Your task to perform on an android device: Search for vegetarian restaurants on Maps Image 0: 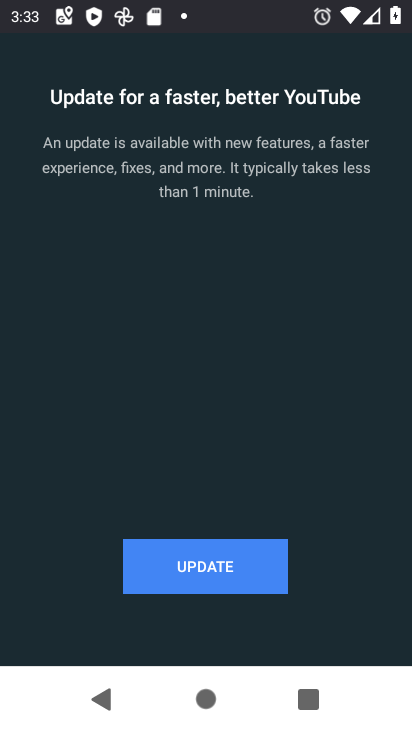
Step 0: press home button
Your task to perform on an android device: Search for vegetarian restaurants on Maps Image 1: 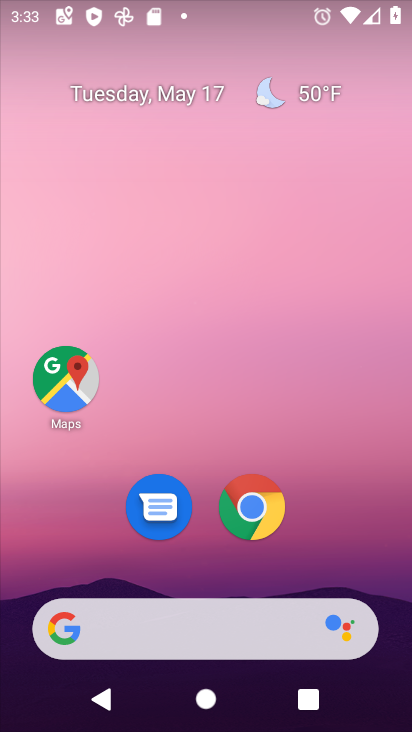
Step 1: click (68, 374)
Your task to perform on an android device: Search for vegetarian restaurants on Maps Image 2: 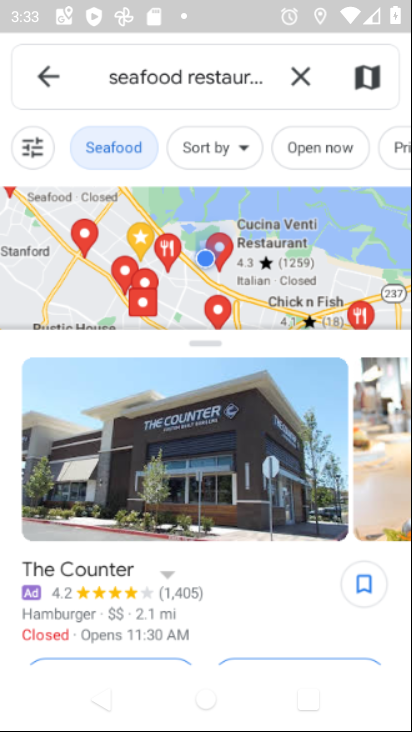
Step 2: click (300, 80)
Your task to perform on an android device: Search for vegetarian restaurants on Maps Image 3: 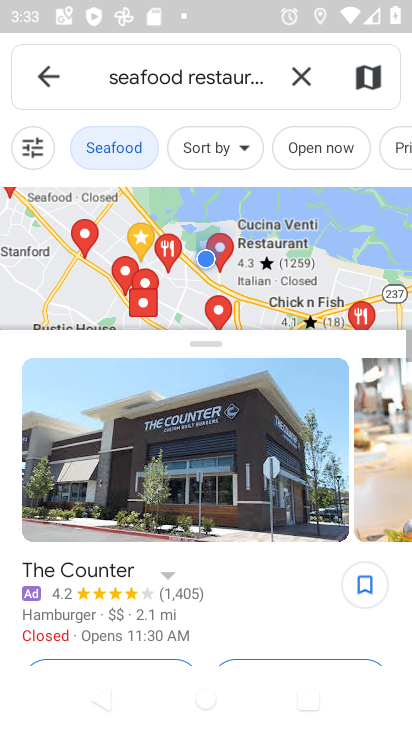
Step 3: click (300, 77)
Your task to perform on an android device: Search for vegetarian restaurants on Maps Image 4: 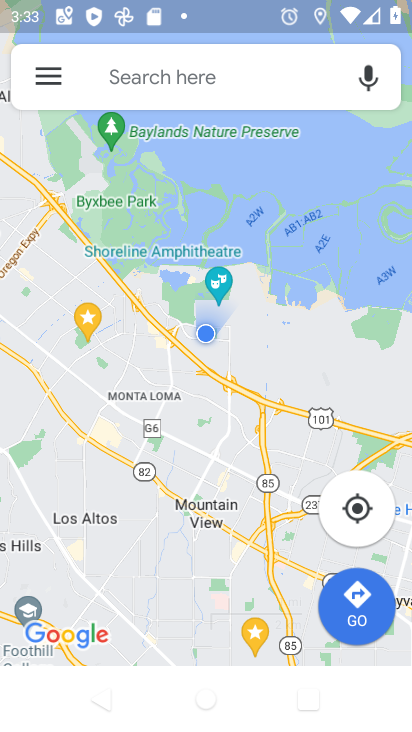
Step 4: click (227, 74)
Your task to perform on an android device: Search for vegetarian restaurants on Maps Image 5: 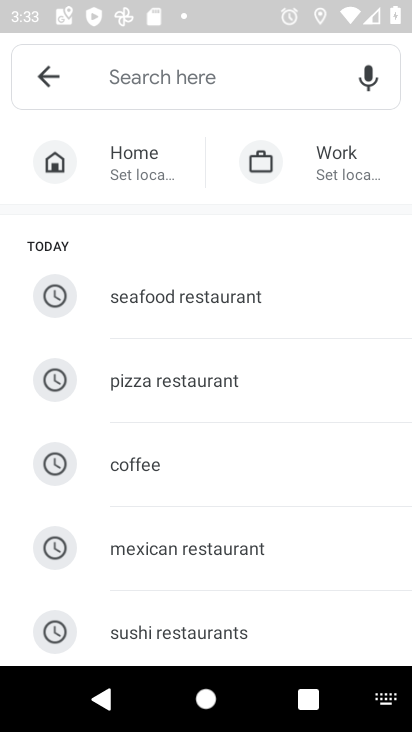
Step 5: drag from (269, 560) to (263, 277)
Your task to perform on an android device: Search for vegetarian restaurants on Maps Image 6: 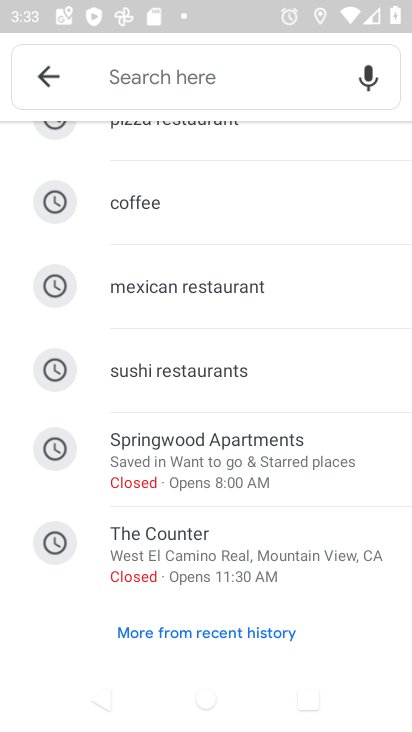
Step 6: drag from (231, 233) to (227, 627)
Your task to perform on an android device: Search for vegetarian restaurants on Maps Image 7: 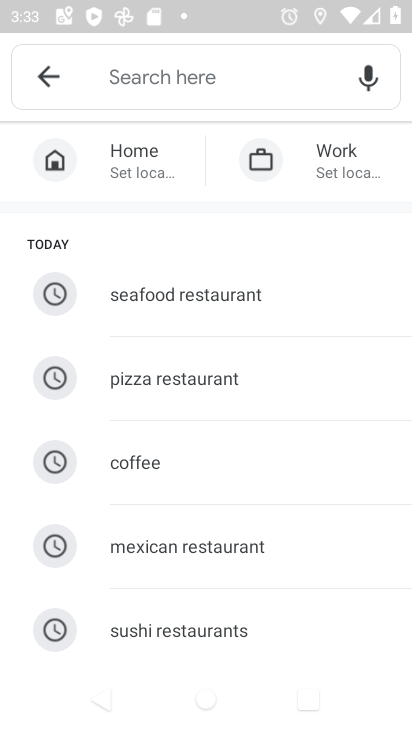
Step 7: drag from (226, 589) to (198, 263)
Your task to perform on an android device: Search for vegetarian restaurants on Maps Image 8: 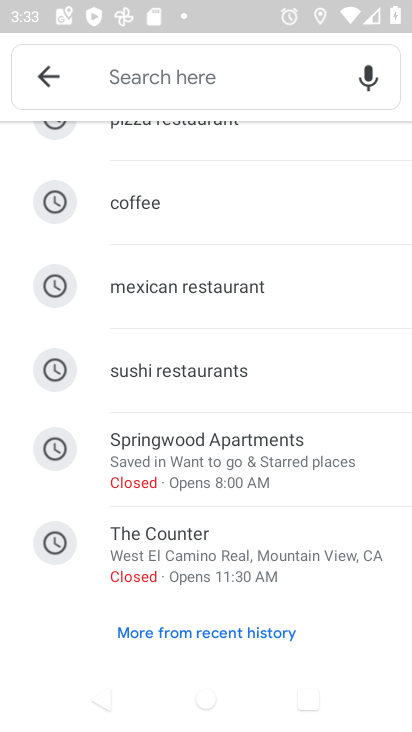
Step 8: drag from (187, 549) to (212, 280)
Your task to perform on an android device: Search for vegetarian restaurants on Maps Image 9: 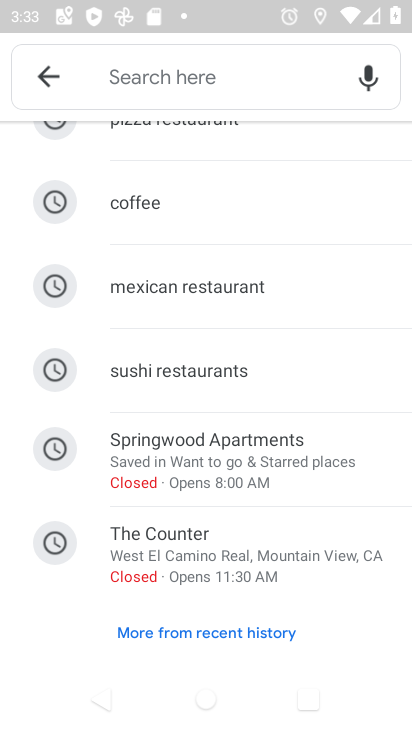
Step 9: drag from (205, 252) to (210, 700)
Your task to perform on an android device: Search for vegetarian restaurants on Maps Image 10: 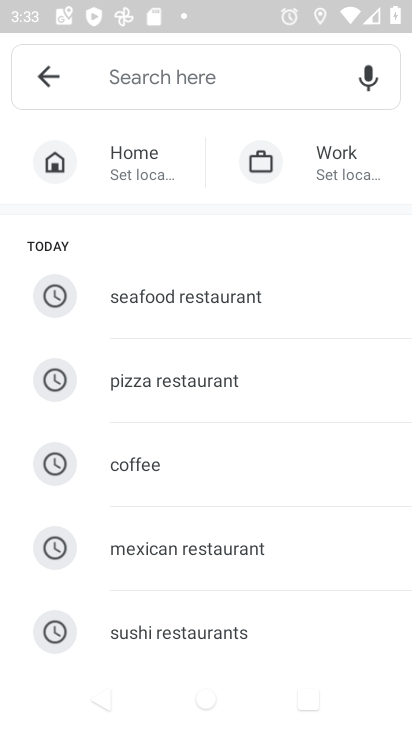
Step 10: click (158, 78)
Your task to perform on an android device: Search for vegetarian restaurants on Maps Image 11: 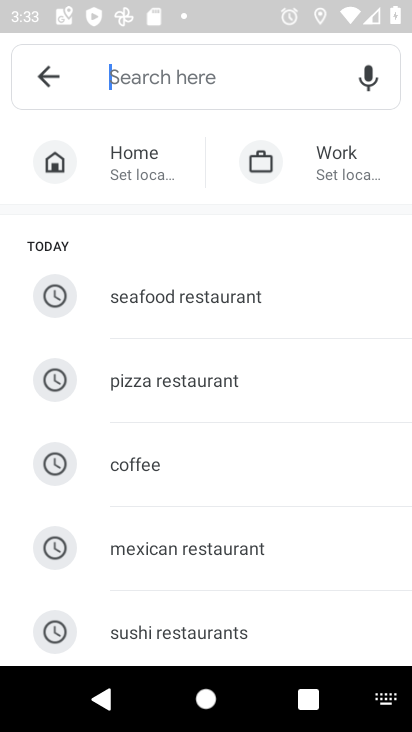
Step 11: type "vegetarian rsetaurants"
Your task to perform on an android device: Search for vegetarian restaurants on Maps Image 12: 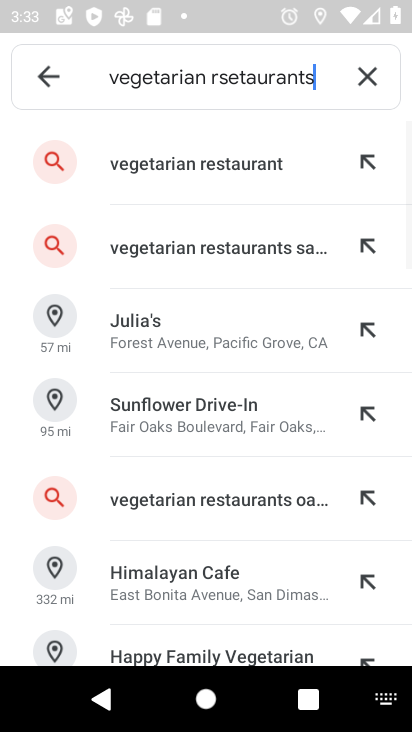
Step 12: click (237, 167)
Your task to perform on an android device: Search for vegetarian restaurants on Maps Image 13: 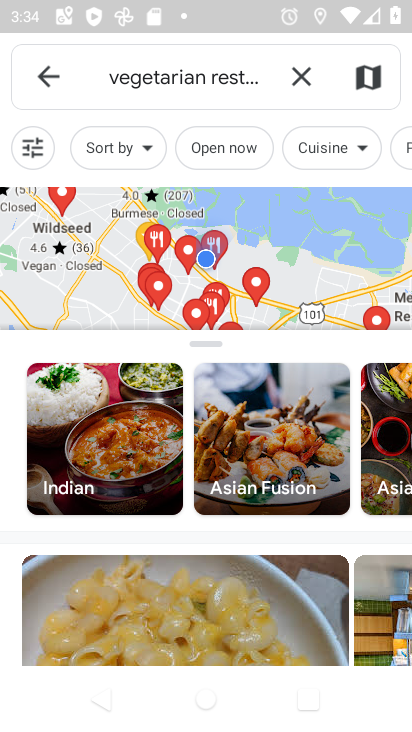
Step 13: task complete